Your task to perform on an android device: Add acer nitro to the cart on amazon.com Image 0: 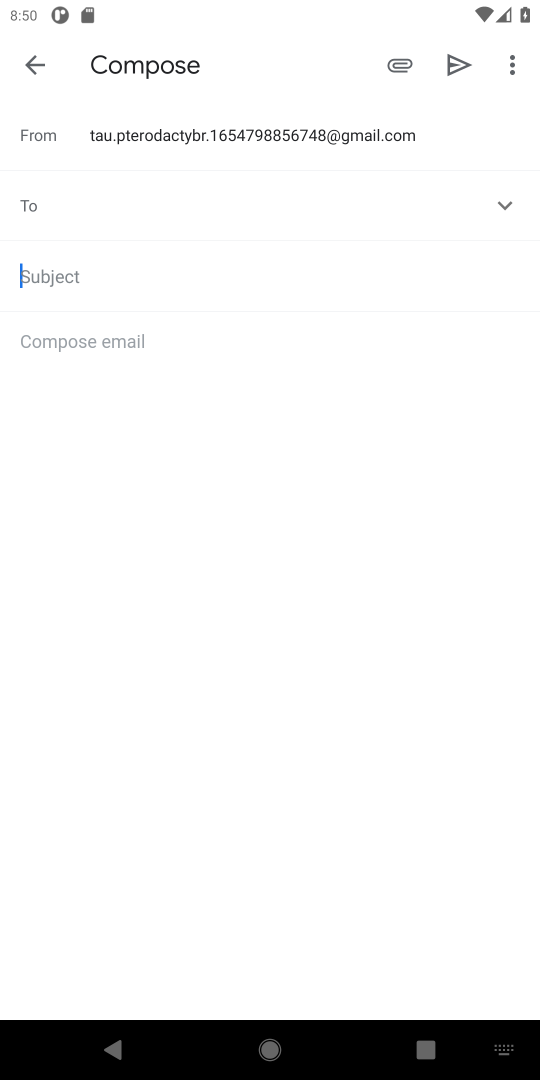
Step 0: press home button
Your task to perform on an android device: Add acer nitro to the cart on amazon.com Image 1: 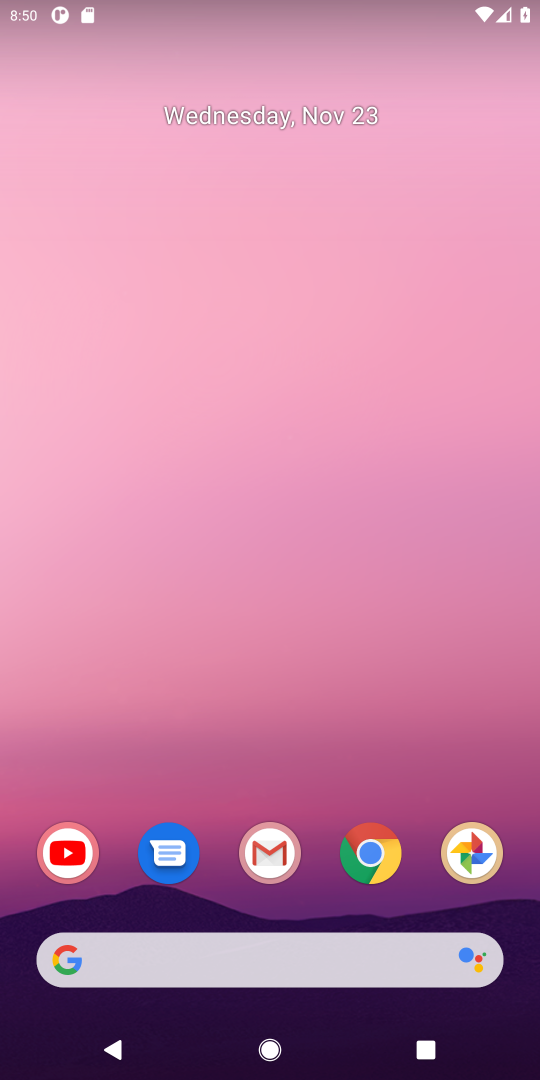
Step 1: click (376, 841)
Your task to perform on an android device: Add acer nitro to the cart on amazon.com Image 2: 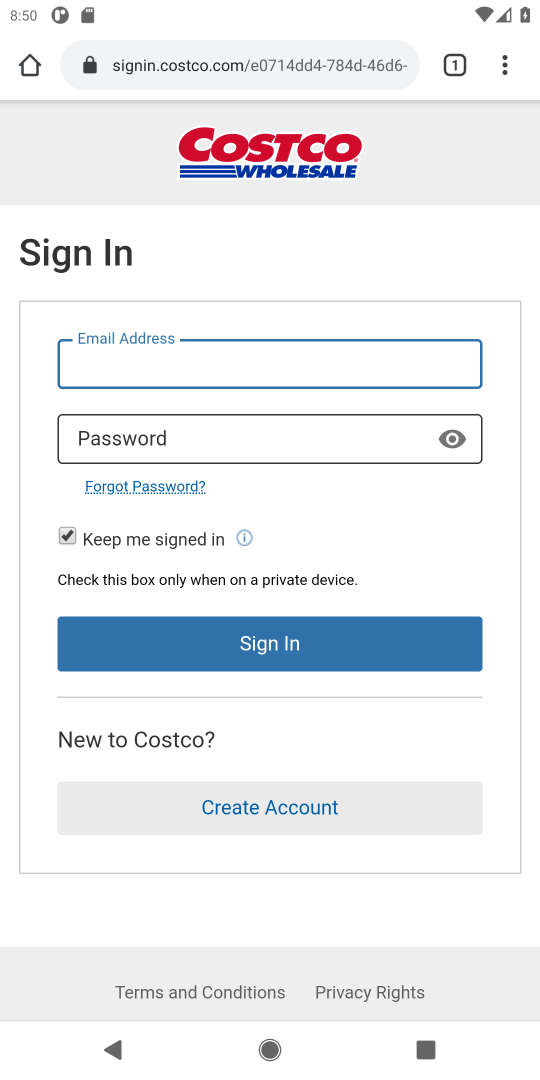
Step 2: click (232, 67)
Your task to perform on an android device: Add acer nitro to the cart on amazon.com Image 3: 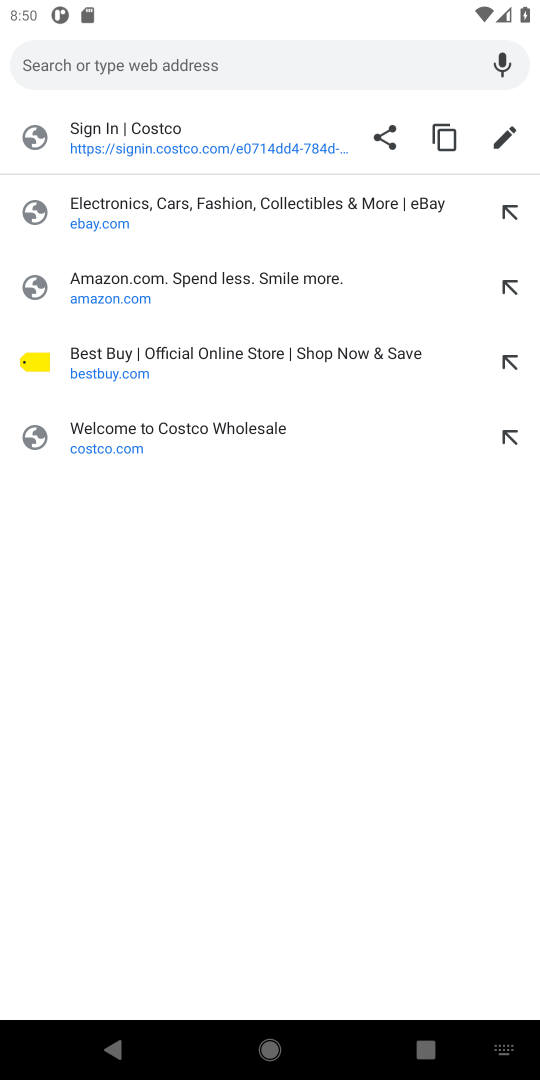
Step 3: click (122, 283)
Your task to perform on an android device: Add acer nitro to the cart on amazon.com Image 4: 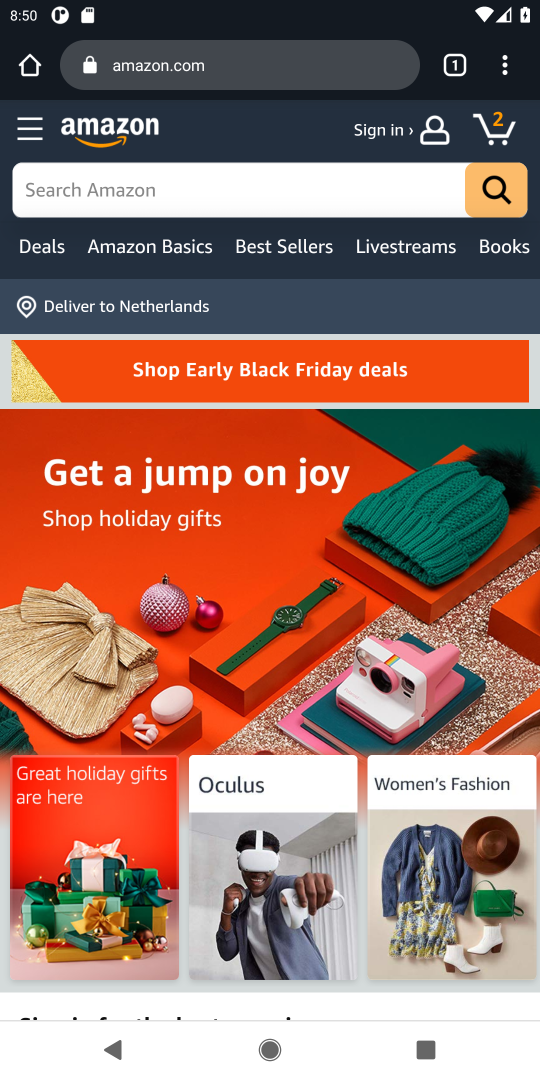
Step 4: click (57, 188)
Your task to perform on an android device: Add acer nitro to the cart on amazon.com Image 5: 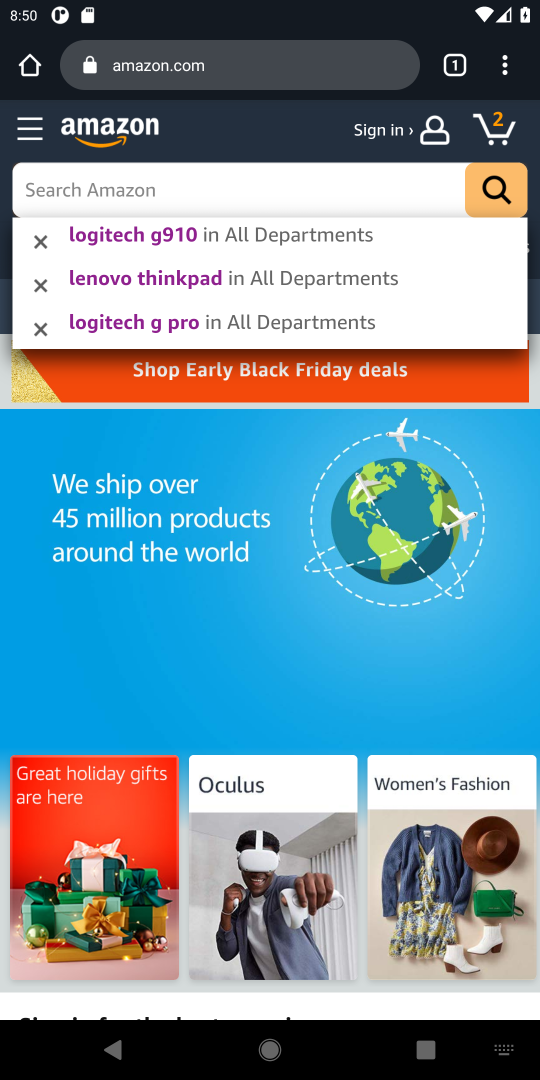
Step 5: type " acer nitro"
Your task to perform on an android device: Add acer nitro to the cart on amazon.com Image 6: 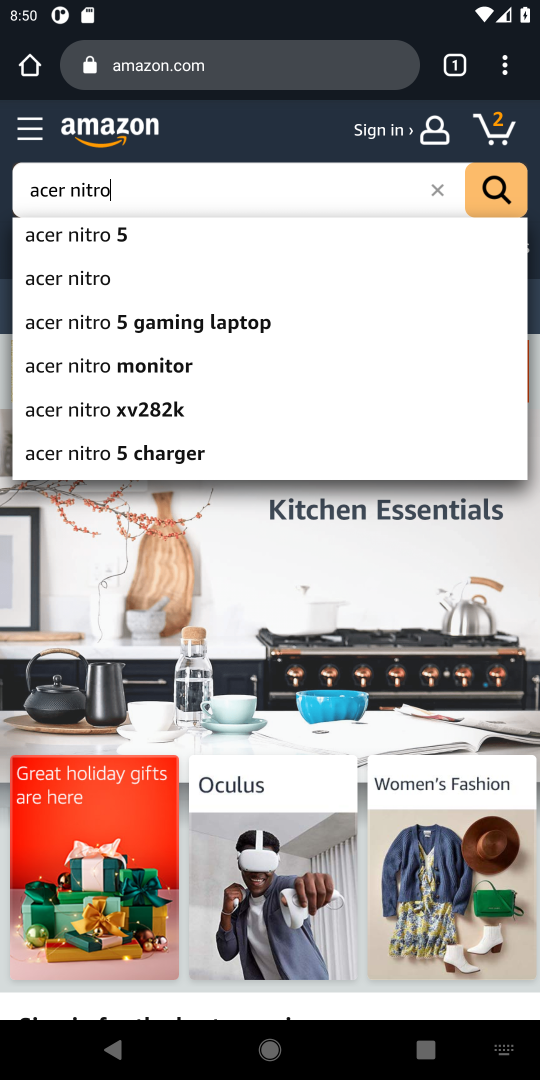
Step 6: click (76, 286)
Your task to perform on an android device: Add acer nitro to the cart on amazon.com Image 7: 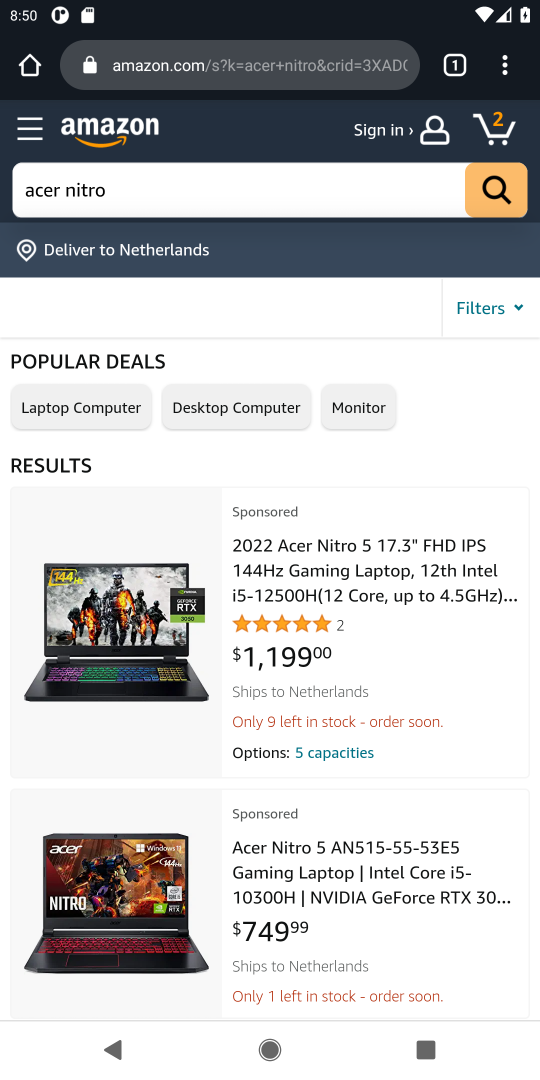
Step 7: click (105, 637)
Your task to perform on an android device: Add acer nitro to the cart on amazon.com Image 8: 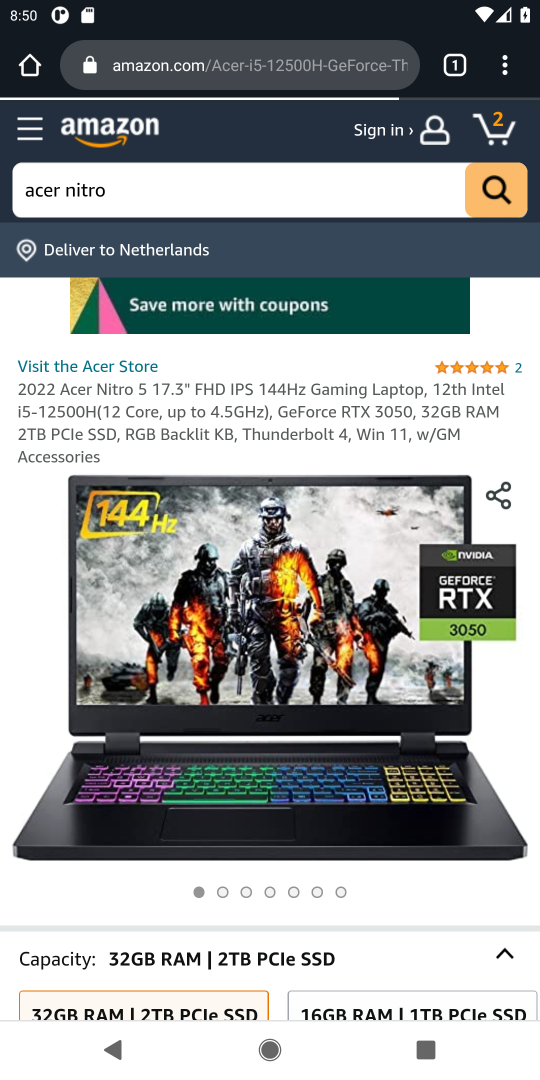
Step 8: drag from (262, 726) to (216, 232)
Your task to perform on an android device: Add acer nitro to the cart on amazon.com Image 9: 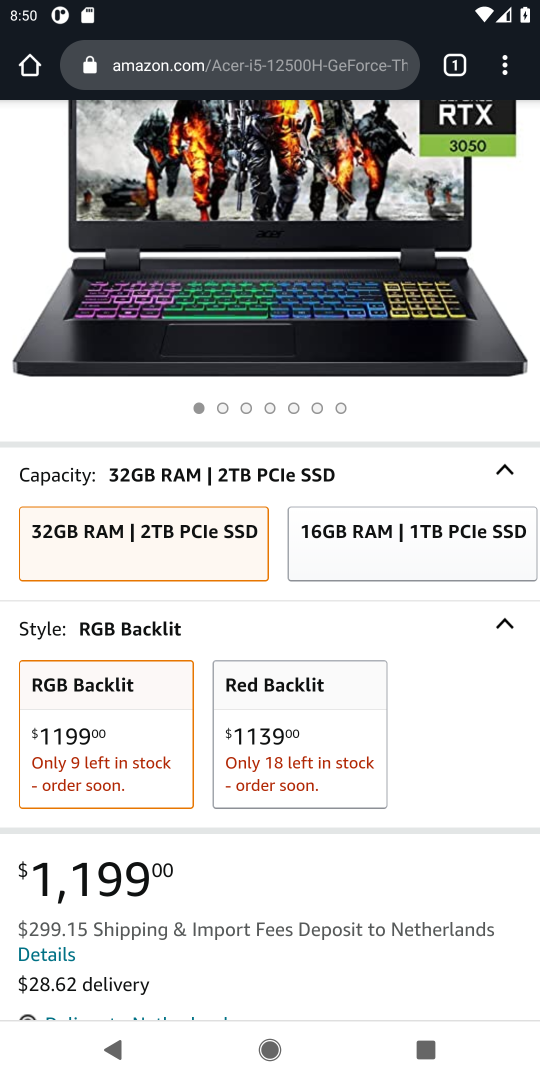
Step 9: drag from (185, 757) to (193, 297)
Your task to perform on an android device: Add acer nitro to the cart on amazon.com Image 10: 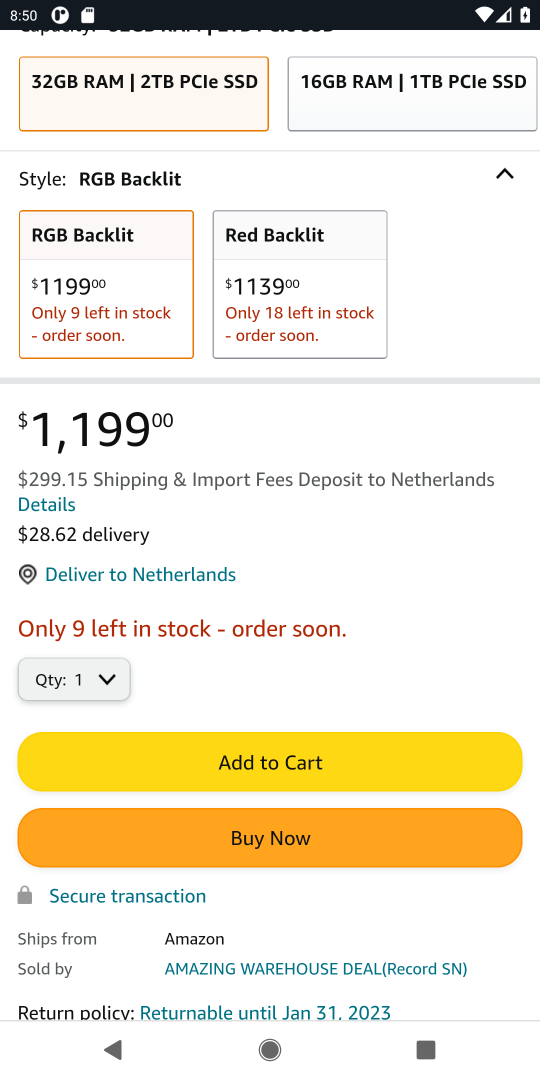
Step 10: click (241, 768)
Your task to perform on an android device: Add acer nitro to the cart on amazon.com Image 11: 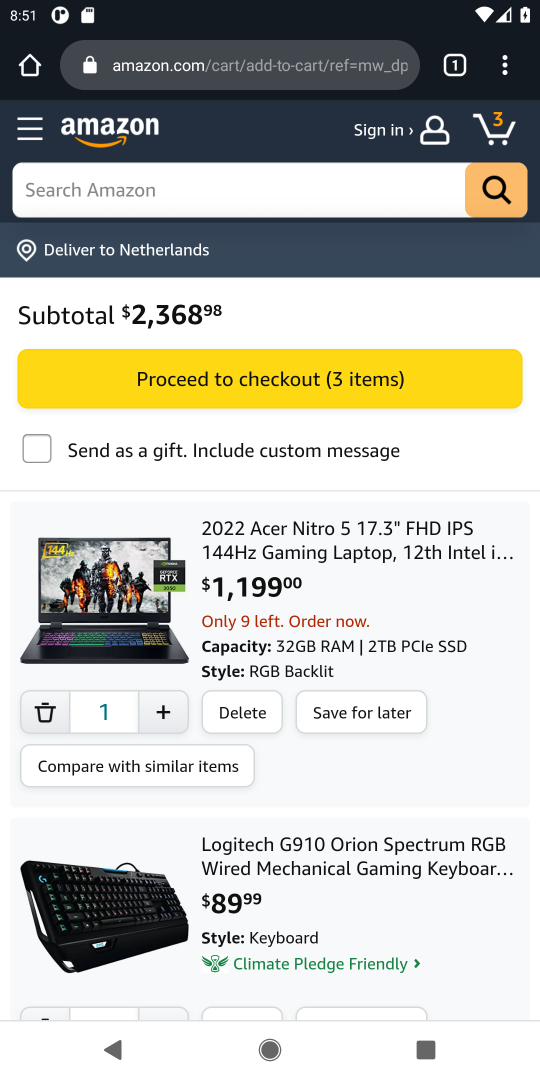
Step 11: task complete